Your task to perform on an android device: Do I have any events tomorrow? Image 0: 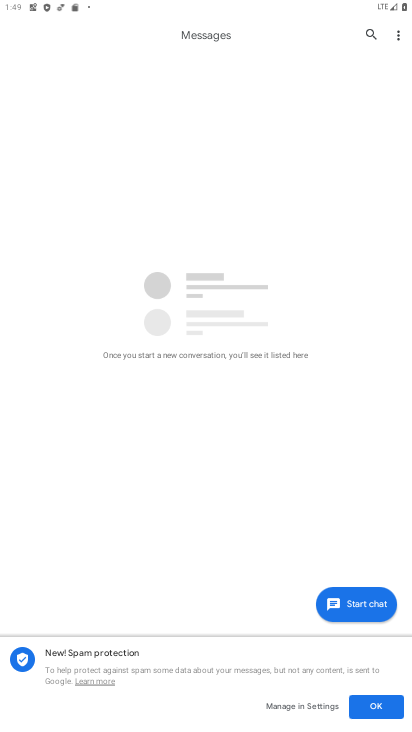
Step 0: press home button
Your task to perform on an android device: Do I have any events tomorrow? Image 1: 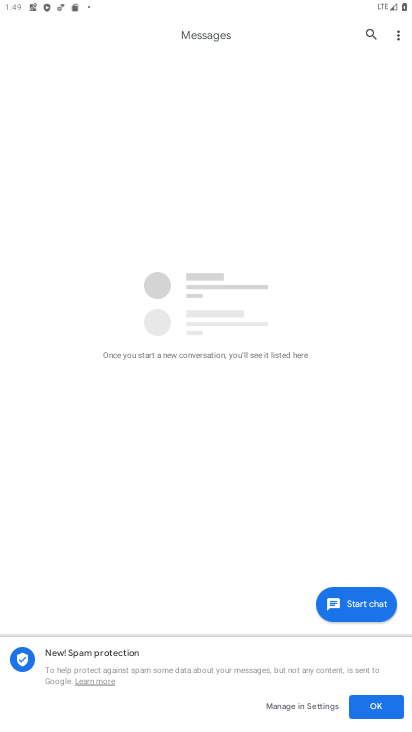
Step 1: press home button
Your task to perform on an android device: Do I have any events tomorrow? Image 2: 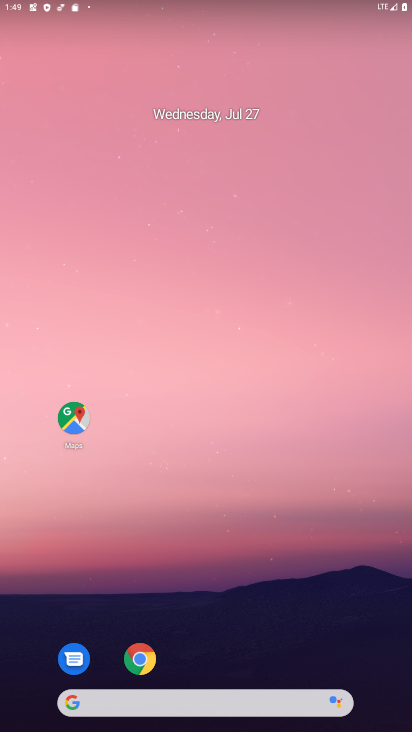
Step 2: drag from (219, 728) to (219, 116)
Your task to perform on an android device: Do I have any events tomorrow? Image 3: 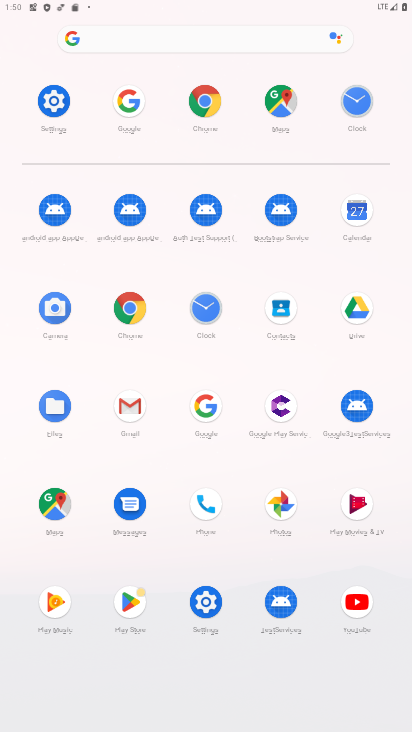
Step 3: click (363, 214)
Your task to perform on an android device: Do I have any events tomorrow? Image 4: 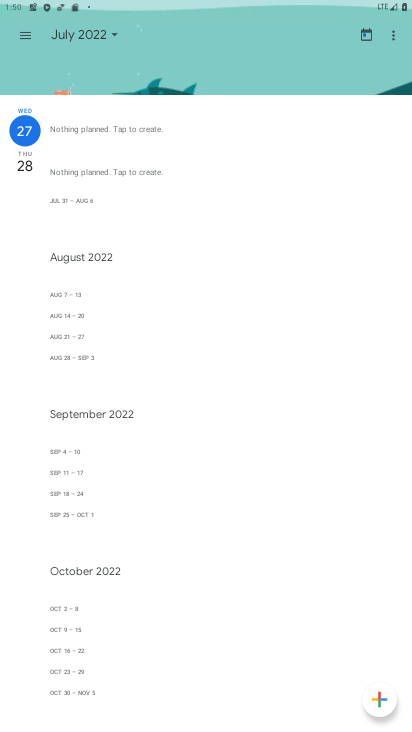
Step 4: click (118, 37)
Your task to perform on an android device: Do I have any events tomorrow? Image 5: 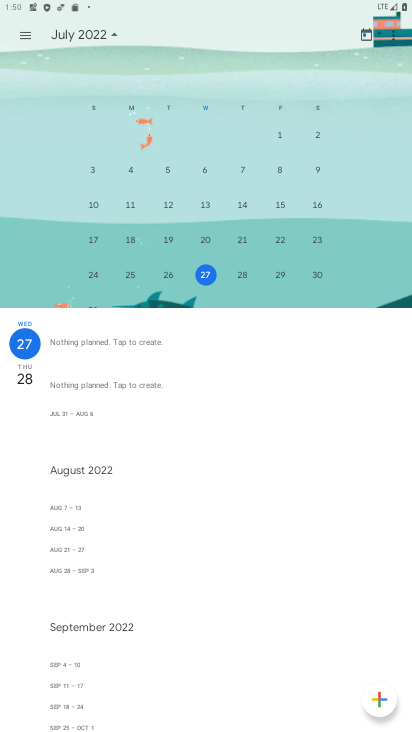
Step 5: click (243, 274)
Your task to perform on an android device: Do I have any events tomorrow? Image 6: 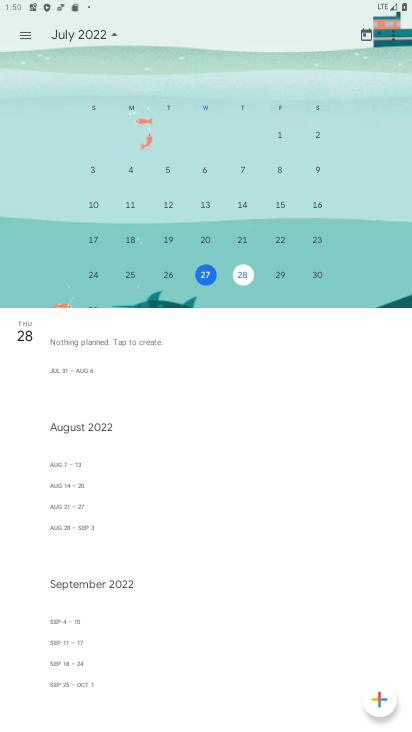
Step 6: click (243, 274)
Your task to perform on an android device: Do I have any events tomorrow? Image 7: 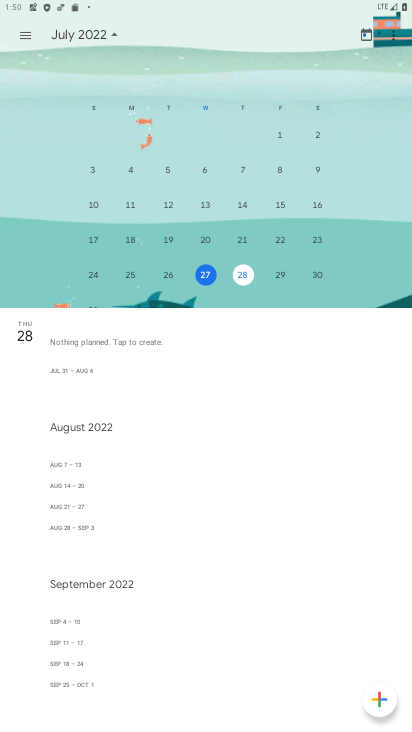
Step 7: click (243, 274)
Your task to perform on an android device: Do I have any events tomorrow? Image 8: 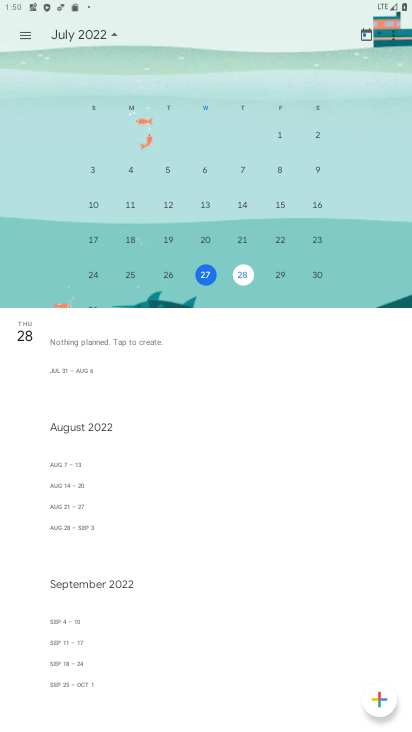
Step 8: click (243, 274)
Your task to perform on an android device: Do I have any events tomorrow? Image 9: 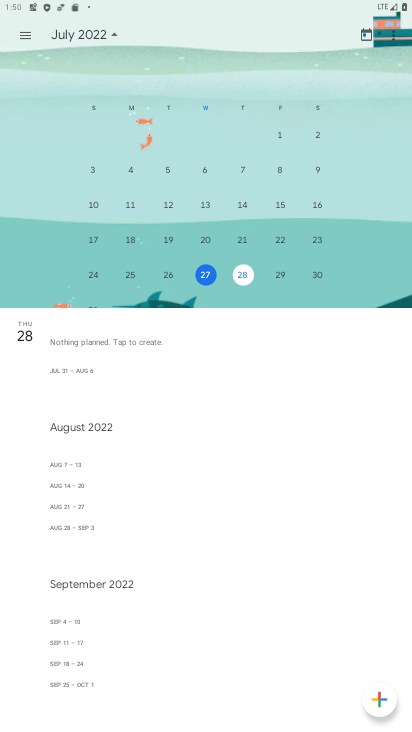
Step 9: click (243, 274)
Your task to perform on an android device: Do I have any events tomorrow? Image 10: 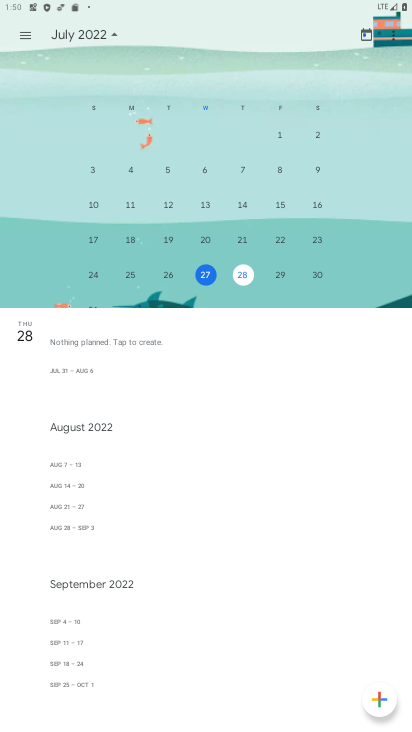
Step 10: click (22, 33)
Your task to perform on an android device: Do I have any events tomorrow? Image 11: 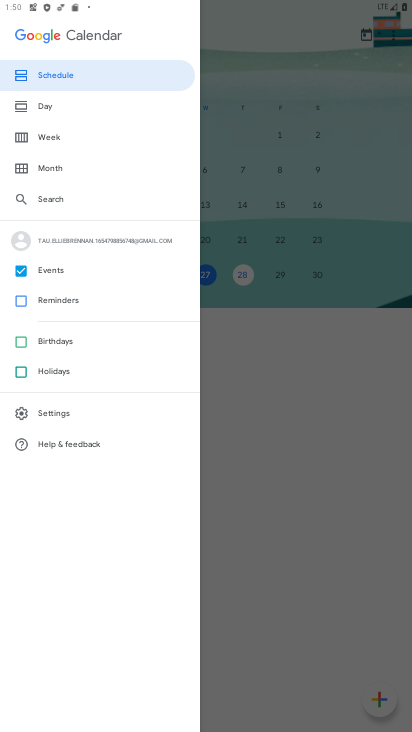
Step 11: click (239, 269)
Your task to perform on an android device: Do I have any events tomorrow? Image 12: 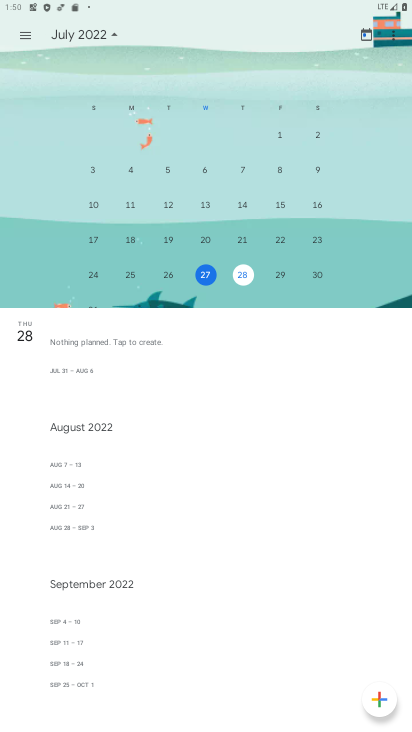
Step 12: task complete